Your task to perform on an android device: Go to network settings Image 0: 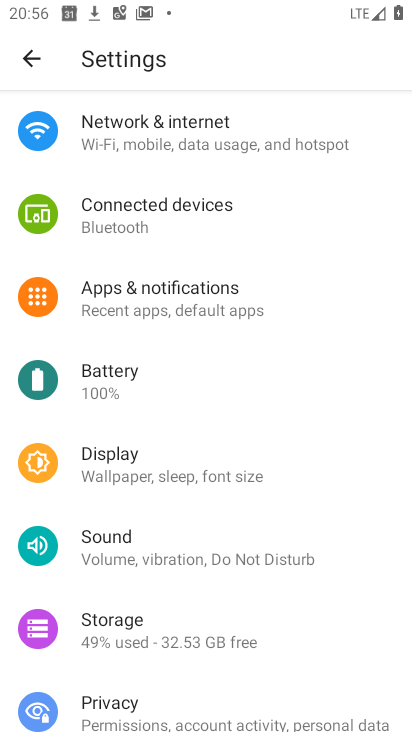
Step 0: press home button
Your task to perform on an android device: Go to network settings Image 1: 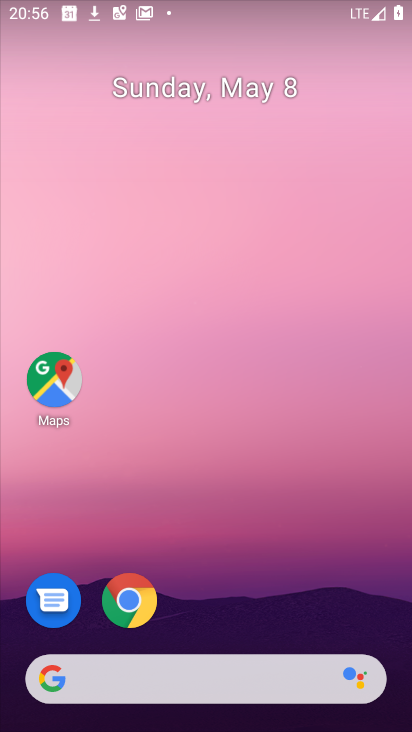
Step 1: drag from (317, 706) to (296, 216)
Your task to perform on an android device: Go to network settings Image 2: 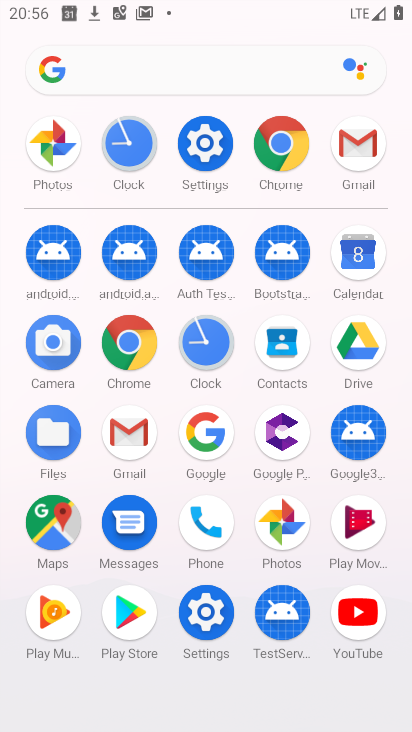
Step 2: click (187, 153)
Your task to perform on an android device: Go to network settings Image 3: 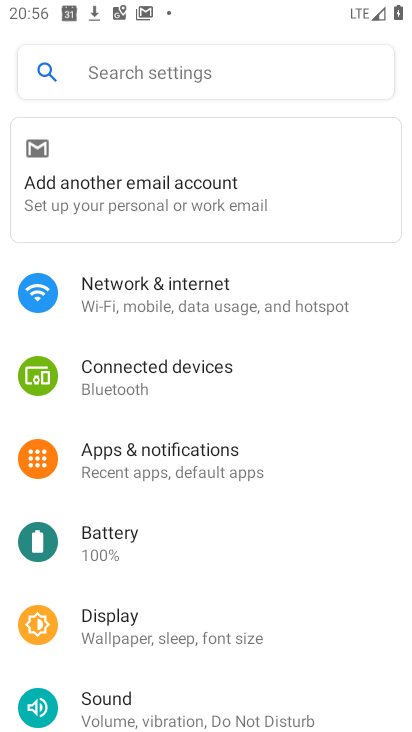
Step 3: click (142, 309)
Your task to perform on an android device: Go to network settings Image 4: 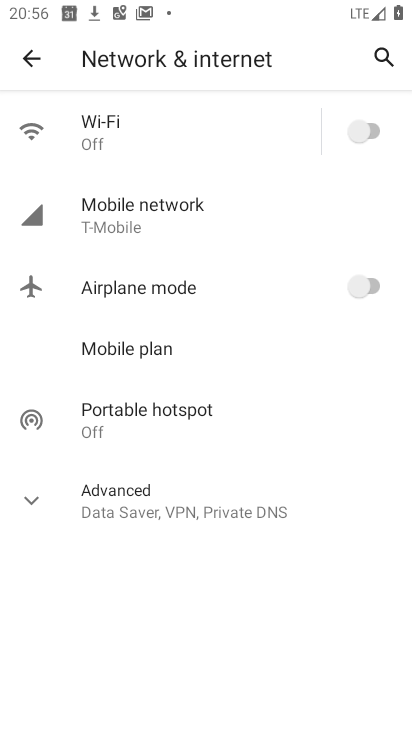
Step 4: task complete